Your task to perform on an android device: toggle show notifications on the lock screen Image 0: 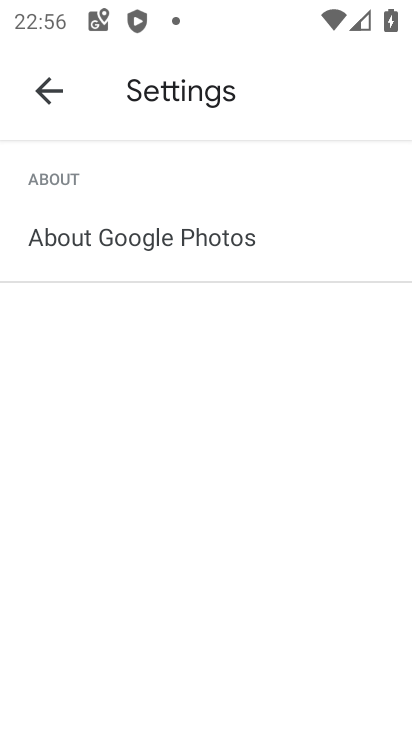
Step 0: press home button
Your task to perform on an android device: toggle show notifications on the lock screen Image 1: 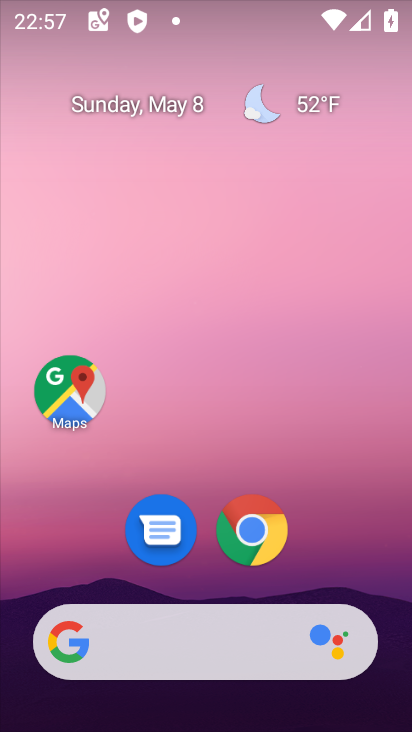
Step 1: drag from (377, 517) to (370, 137)
Your task to perform on an android device: toggle show notifications on the lock screen Image 2: 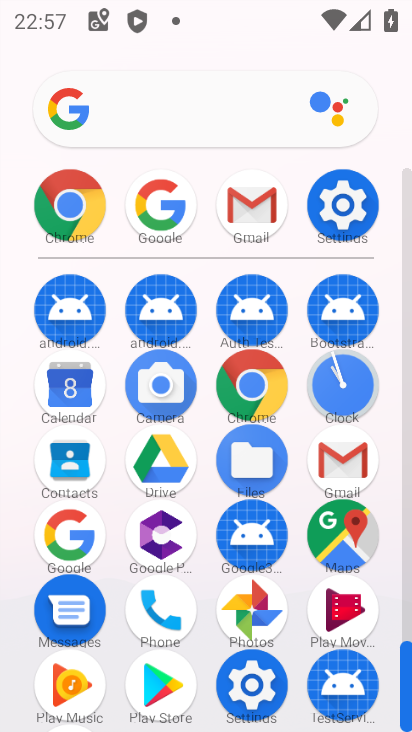
Step 2: click (347, 191)
Your task to perform on an android device: toggle show notifications on the lock screen Image 3: 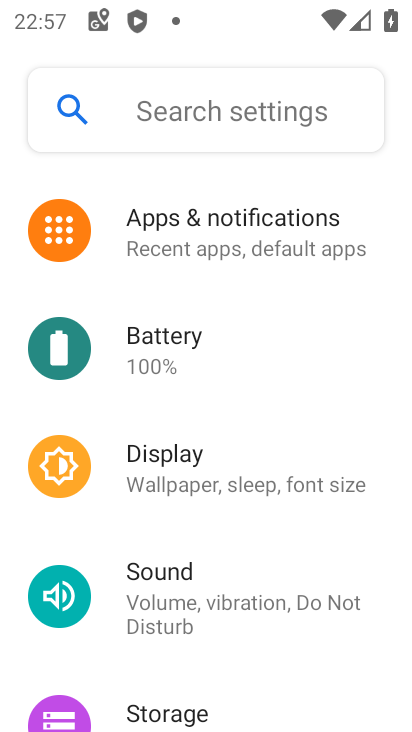
Step 3: drag from (243, 640) to (272, 343)
Your task to perform on an android device: toggle show notifications on the lock screen Image 4: 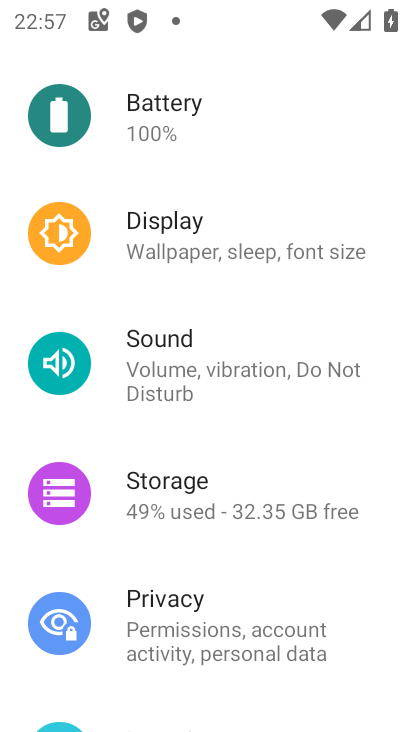
Step 4: drag from (239, 542) to (298, 210)
Your task to perform on an android device: toggle show notifications on the lock screen Image 5: 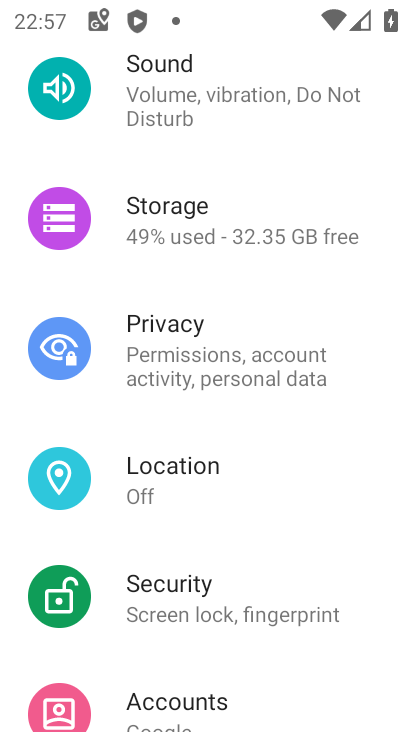
Step 5: drag from (291, 434) to (302, 162)
Your task to perform on an android device: toggle show notifications on the lock screen Image 6: 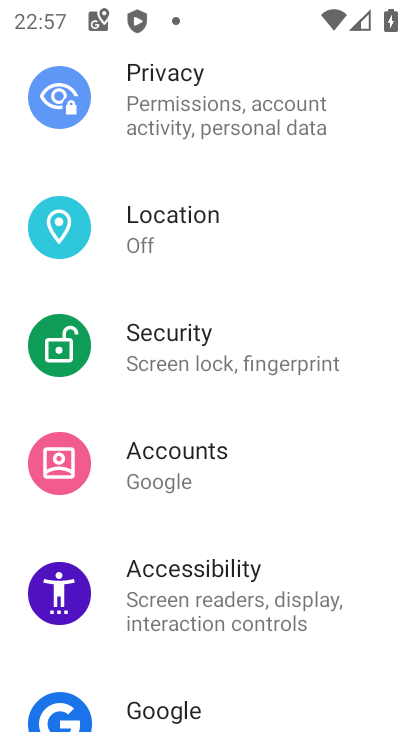
Step 6: drag from (274, 59) to (257, 570)
Your task to perform on an android device: toggle show notifications on the lock screen Image 7: 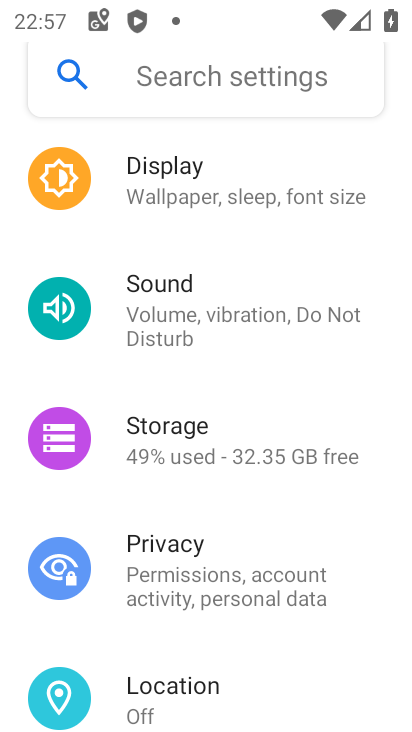
Step 7: drag from (229, 190) to (242, 570)
Your task to perform on an android device: toggle show notifications on the lock screen Image 8: 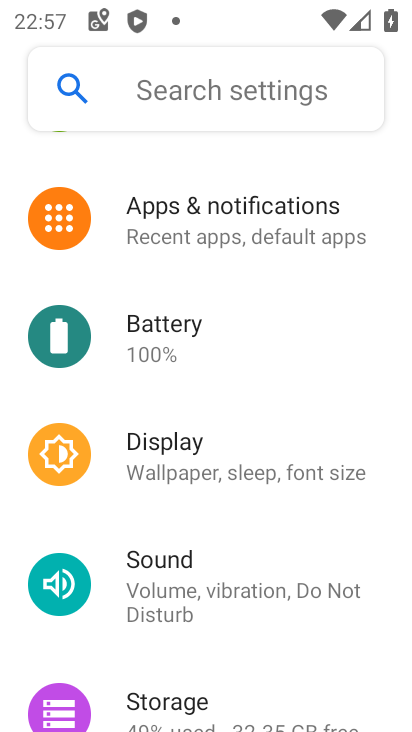
Step 8: click (216, 220)
Your task to perform on an android device: toggle show notifications on the lock screen Image 9: 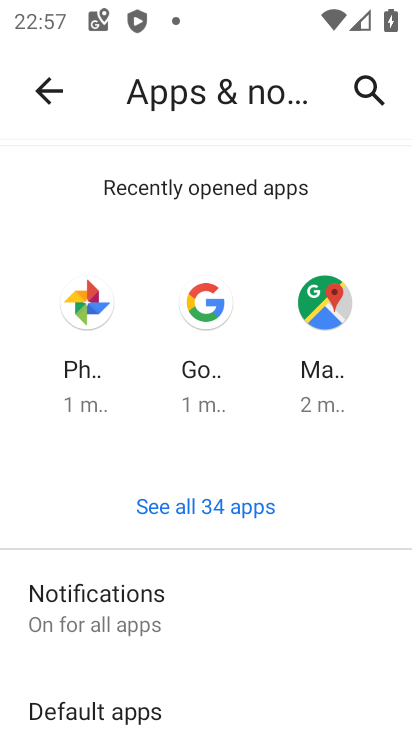
Step 9: click (124, 609)
Your task to perform on an android device: toggle show notifications on the lock screen Image 10: 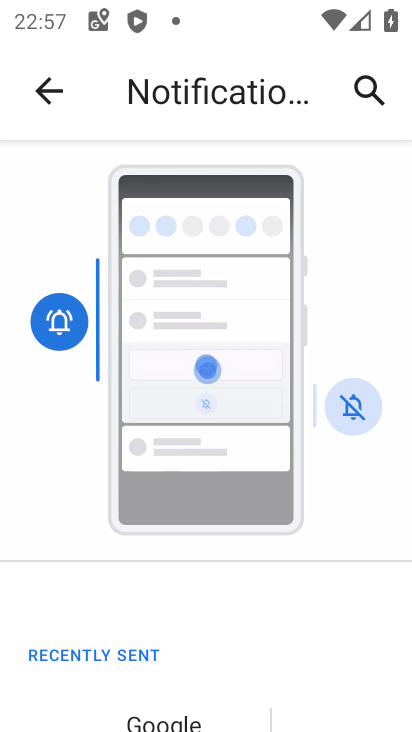
Step 10: drag from (229, 692) to (323, 300)
Your task to perform on an android device: toggle show notifications on the lock screen Image 11: 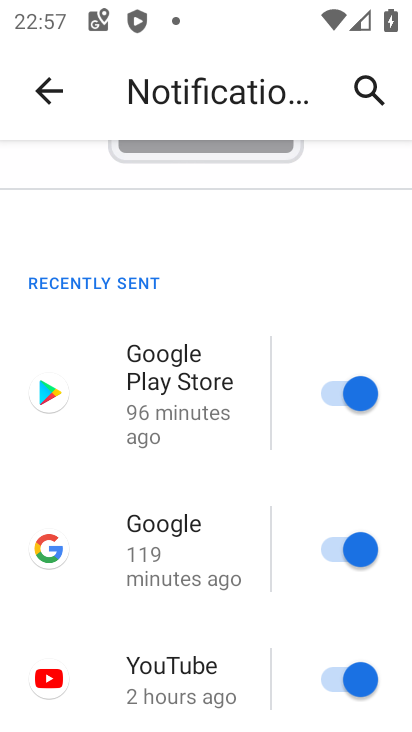
Step 11: drag from (242, 639) to (292, 253)
Your task to perform on an android device: toggle show notifications on the lock screen Image 12: 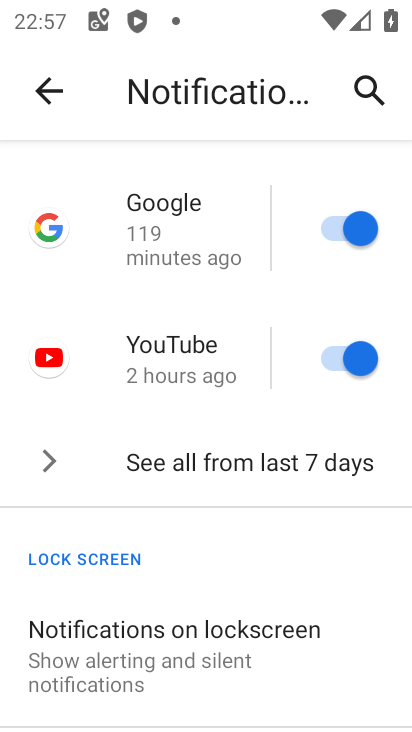
Step 12: click (199, 646)
Your task to perform on an android device: toggle show notifications on the lock screen Image 13: 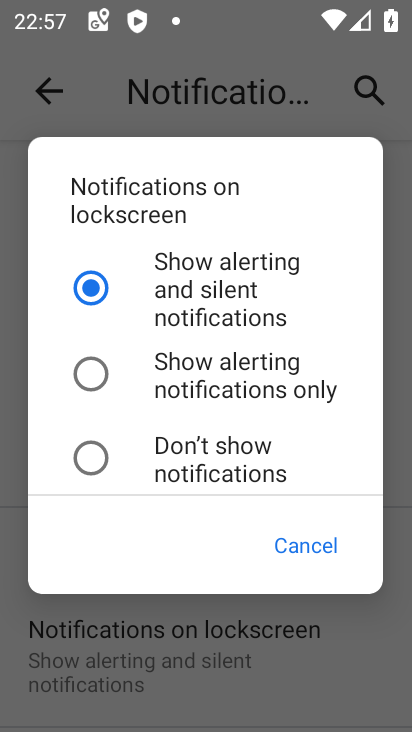
Step 13: click (203, 466)
Your task to perform on an android device: toggle show notifications on the lock screen Image 14: 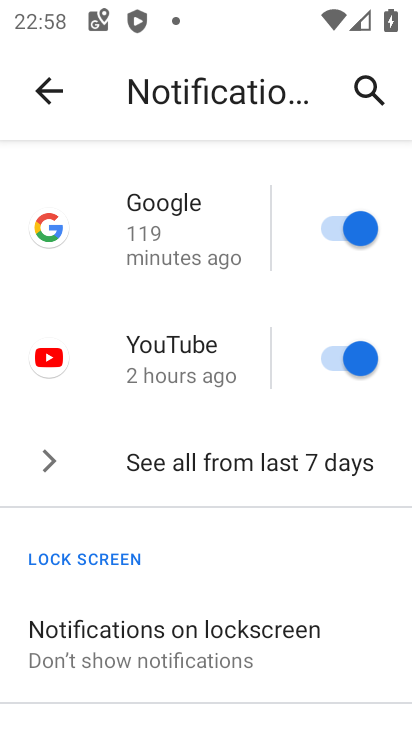
Step 14: task complete